Your task to perform on an android device: When is my next meeting? Image 0: 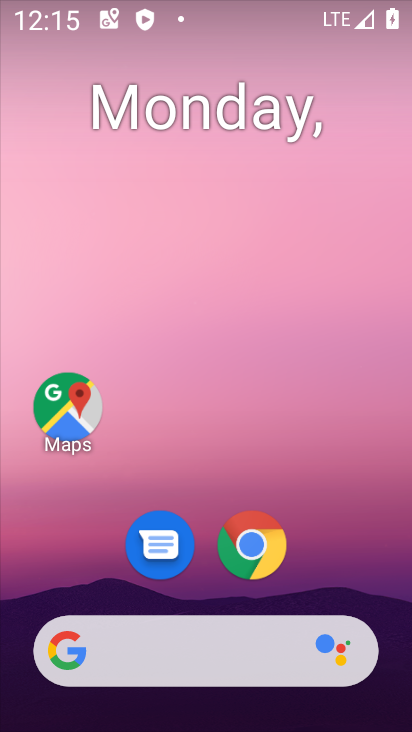
Step 0: click (388, 143)
Your task to perform on an android device: When is my next meeting? Image 1: 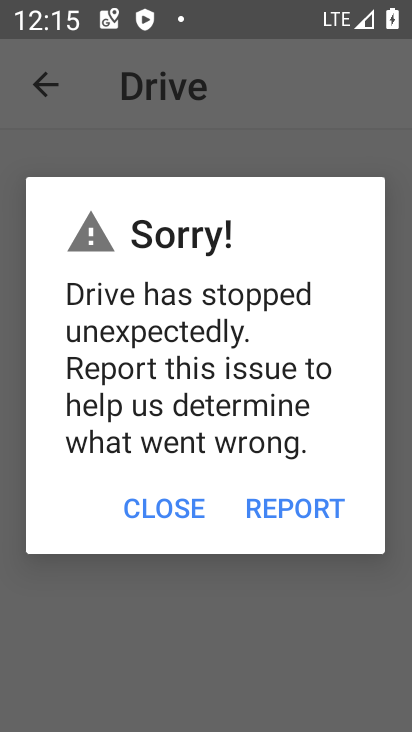
Step 1: press home button
Your task to perform on an android device: When is my next meeting? Image 2: 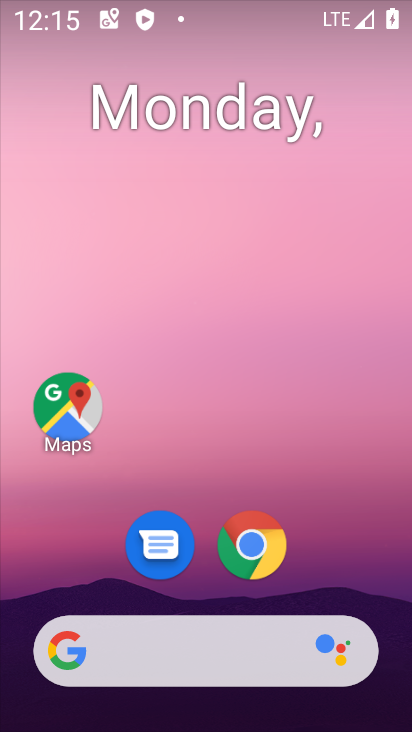
Step 2: drag from (347, 569) to (369, 147)
Your task to perform on an android device: When is my next meeting? Image 3: 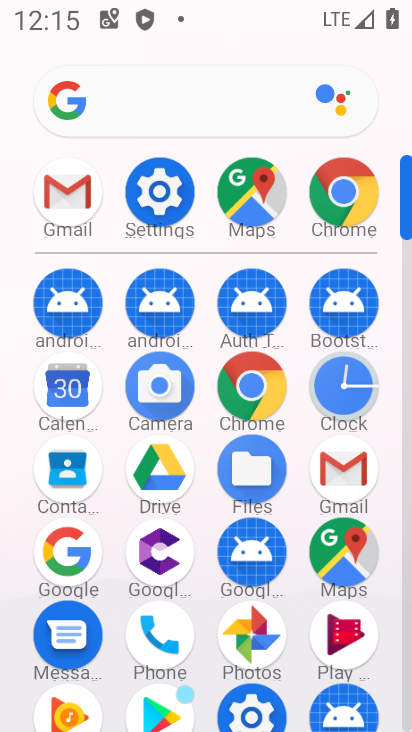
Step 3: click (41, 396)
Your task to perform on an android device: When is my next meeting? Image 4: 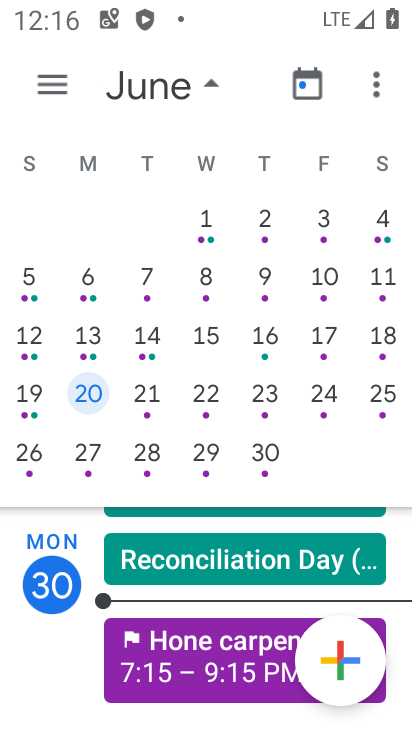
Step 4: click (216, 652)
Your task to perform on an android device: When is my next meeting? Image 5: 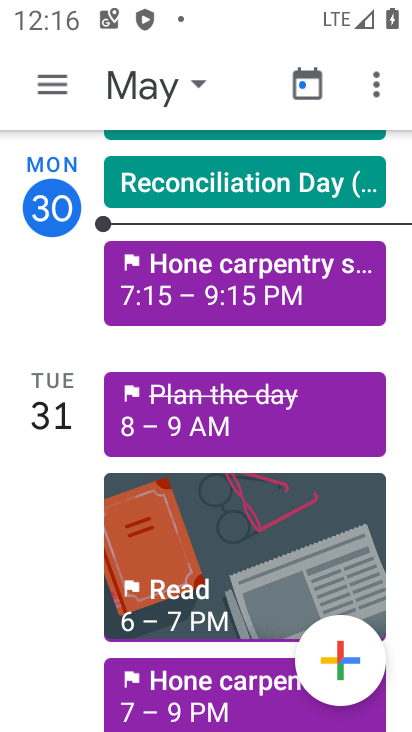
Step 5: click (210, 296)
Your task to perform on an android device: When is my next meeting? Image 6: 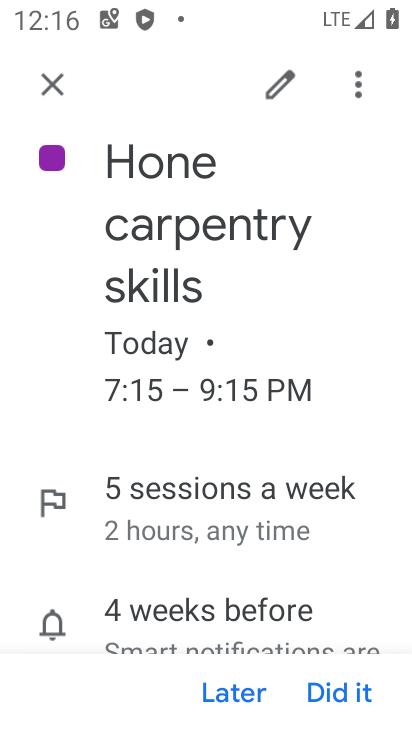
Step 6: task complete